Your task to perform on an android device: toggle notification dots Image 0: 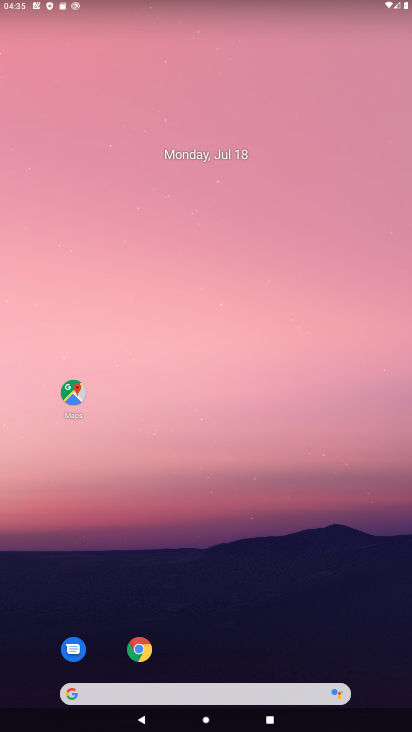
Step 0: drag from (207, 639) to (216, 73)
Your task to perform on an android device: toggle notification dots Image 1: 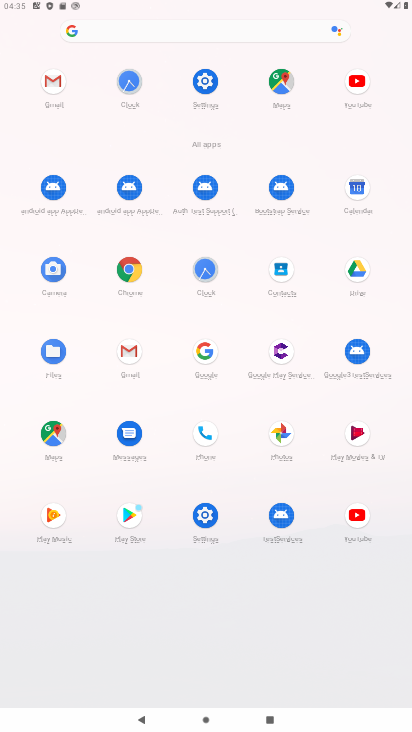
Step 1: click (217, 88)
Your task to perform on an android device: toggle notification dots Image 2: 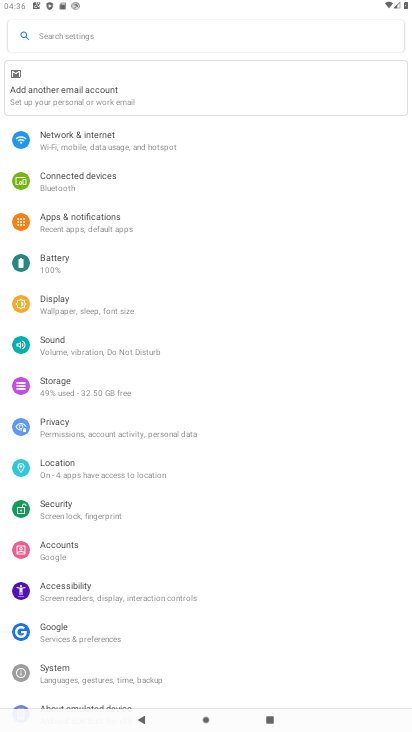
Step 2: click (116, 224)
Your task to perform on an android device: toggle notification dots Image 3: 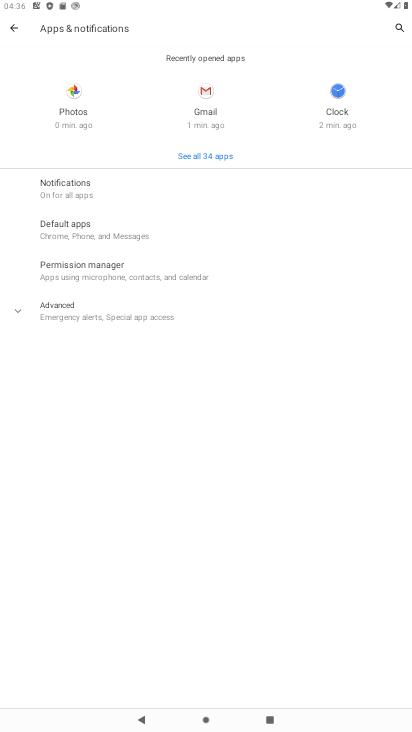
Step 3: click (87, 203)
Your task to perform on an android device: toggle notification dots Image 4: 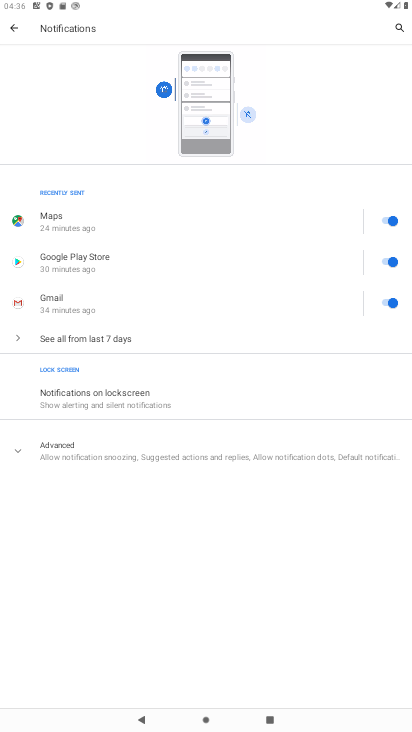
Step 4: click (70, 450)
Your task to perform on an android device: toggle notification dots Image 5: 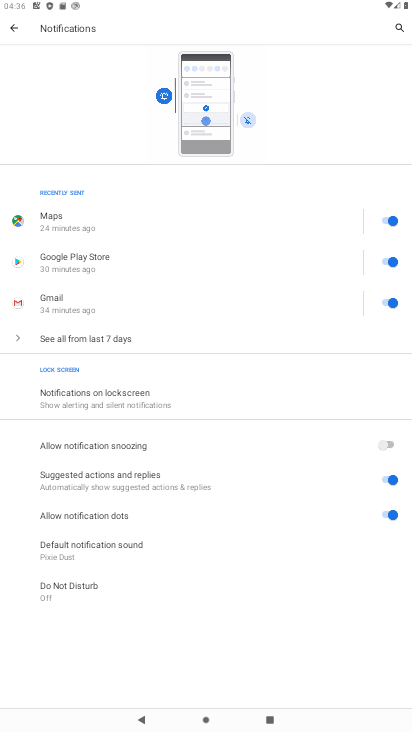
Step 5: click (388, 512)
Your task to perform on an android device: toggle notification dots Image 6: 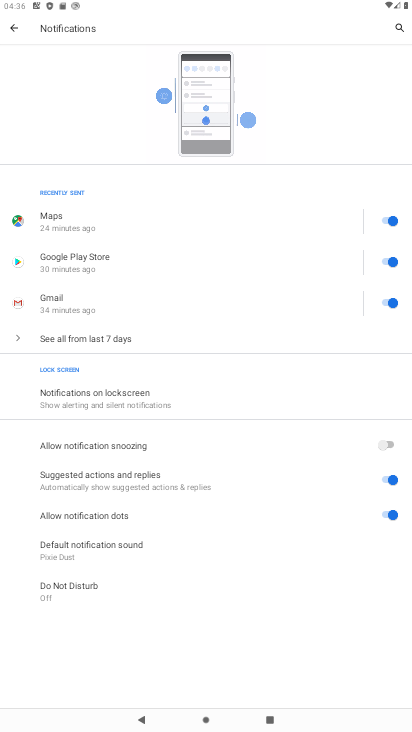
Step 6: click (388, 512)
Your task to perform on an android device: toggle notification dots Image 7: 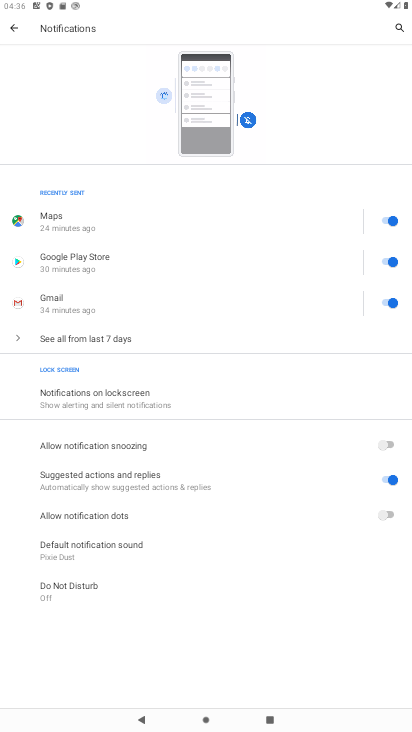
Step 7: click (388, 512)
Your task to perform on an android device: toggle notification dots Image 8: 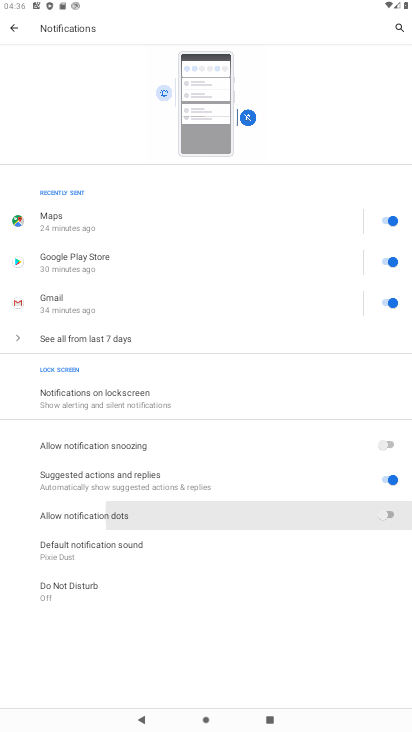
Step 8: click (388, 512)
Your task to perform on an android device: toggle notification dots Image 9: 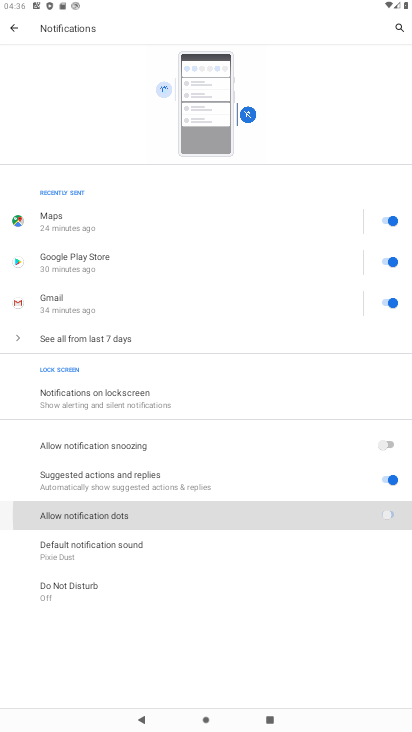
Step 9: click (388, 512)
Your task to perform on an android device: toggle notification dots Image 10: 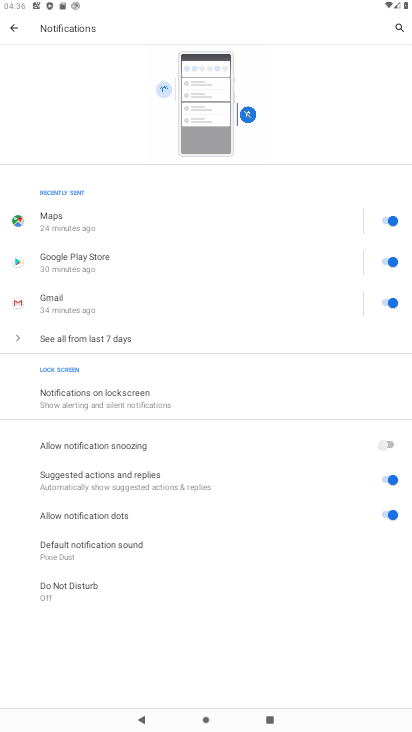
Step 10: click (388, 512)
Your task to perform on an android device: toggle notification dots Image 11: 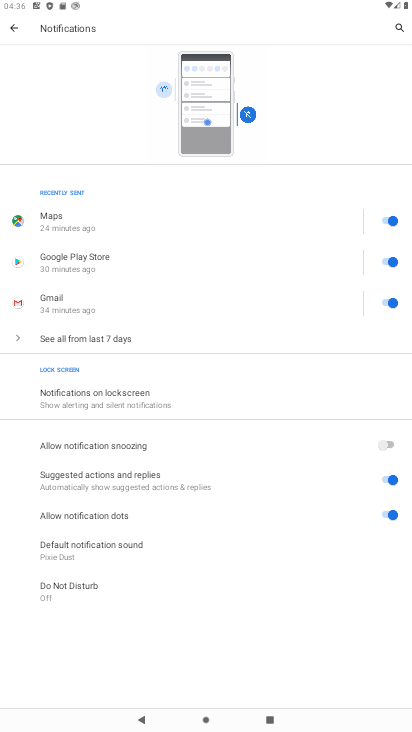
Step 11: task complete